Your task to perform on an android device: Show me the alarms in the clock app Image 0: 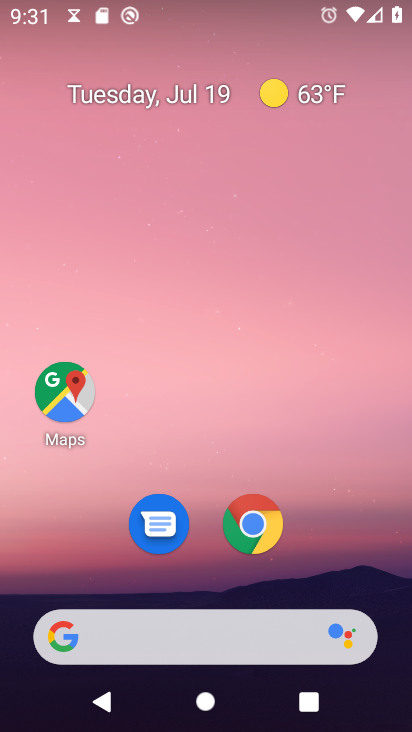
Step 0: drag from (196, 651) to (306, 201)
Your task to perform on an android device: Show me the alarms in the clock app Image 1: 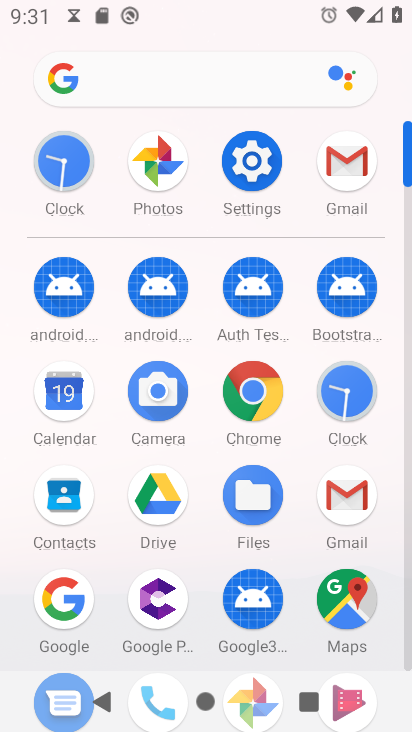
Step 1: click (69, 166)
Your task to perform on an android device: Show me the alarms in the clock app Image 2: 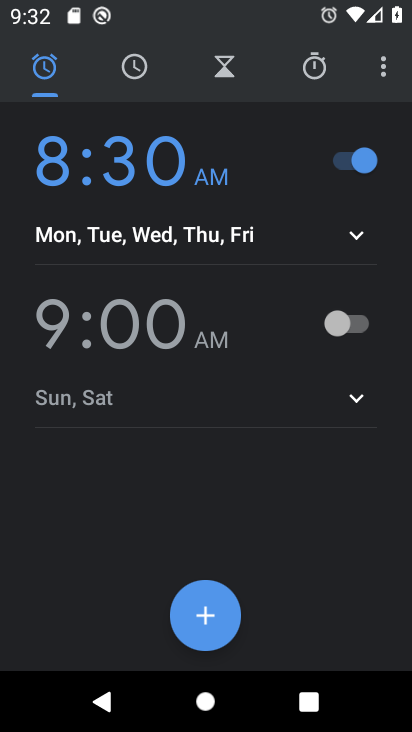
Step 2: task complete